Your task to perform on an android device: Open settings Image 0: 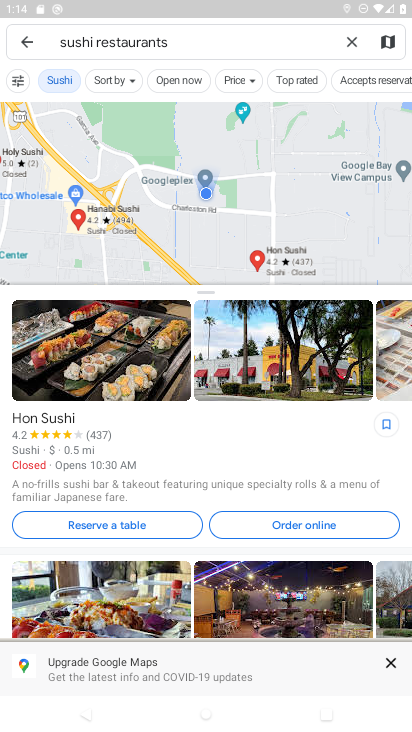
Step 0: press home button
Your task to perform on an android device: Open settings Image 1: 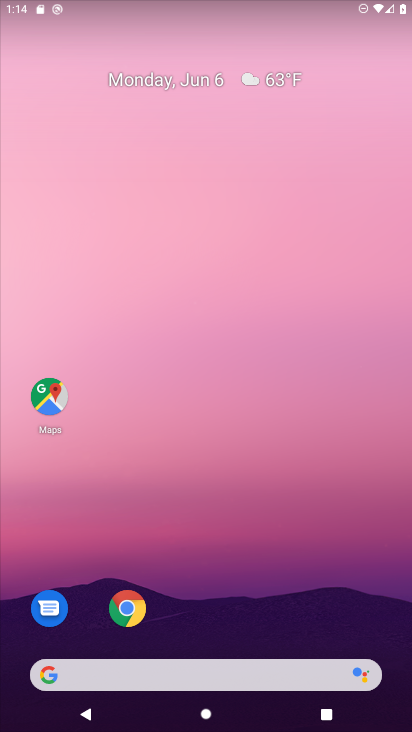
Step 1: drag from (191, 646) to (132, 55)
Your task to perform on an android device: Open settings Image 2: 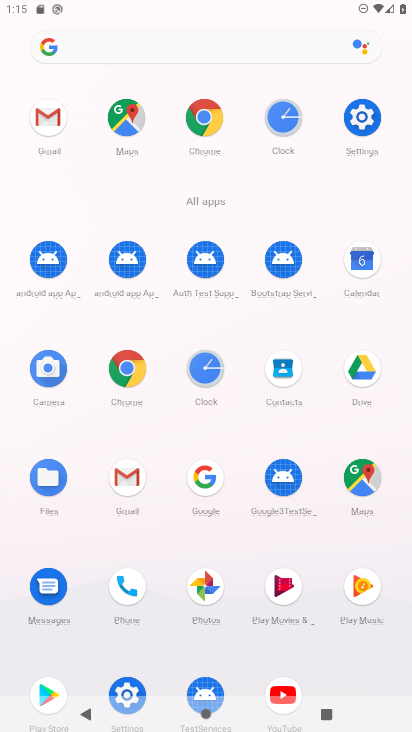
Step 2: click (360, 128)
Your task to perform on an android device: Open settings Image 3: 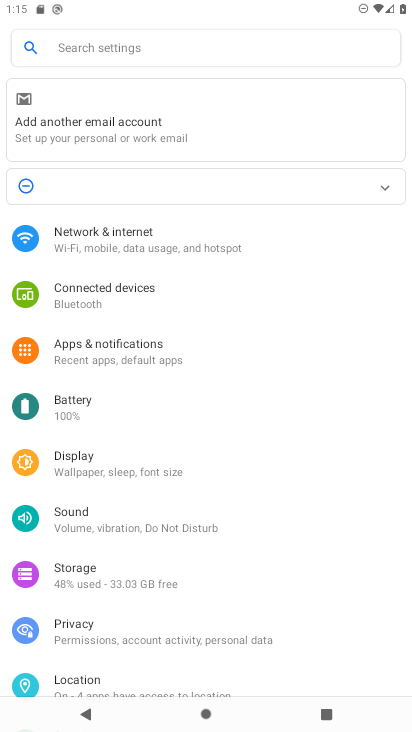
Step 3: task complete